Your task to perform on an android device: Search for pizza restaurants on Maps Image 0: 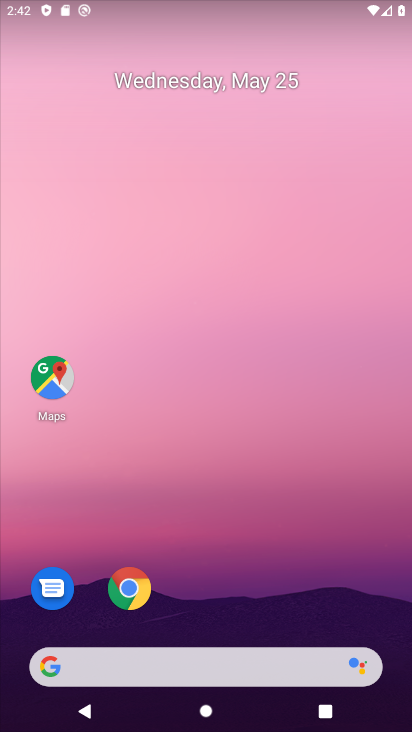
Step 0: drag from (309, 682) to (240, 145)
Your task to perform on an android device: Search for pizza restaurants on Maps Image 1: 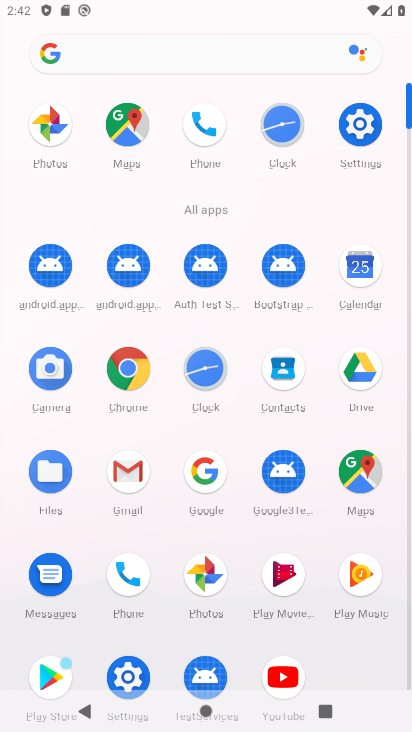
Step 1: click (365, 461)
Your task to perform on an android device: Search for pizza restaurants on Maps Image 2: 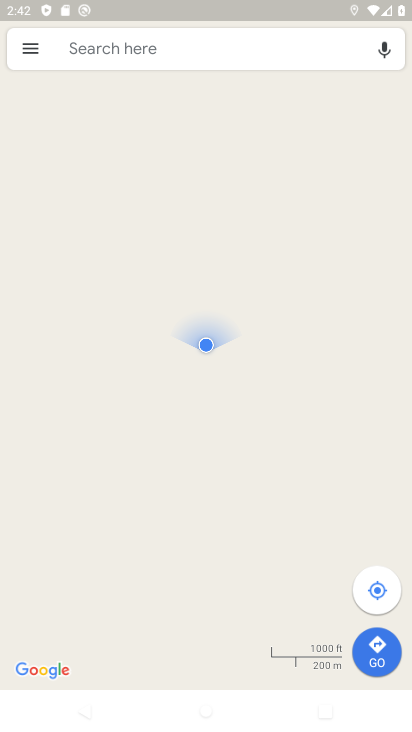
Step 2: click (147, 62)
Your task to perform on an android device: Search for pizza restaurants on Maps Image 3: 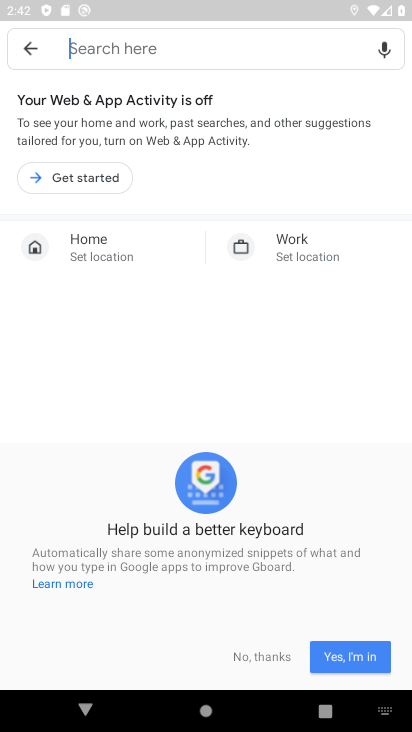
Step 3: click (255, 654)
Your task to perform on an android device: Search for pizza restaurants on Maps Image 4: 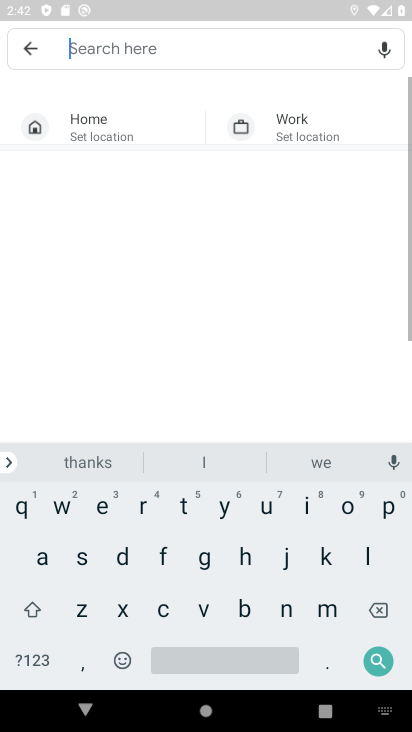
Step 4: click (70, 176)
Your task to perform on an android device: Search for pizza restaurants on Maps Image 5: 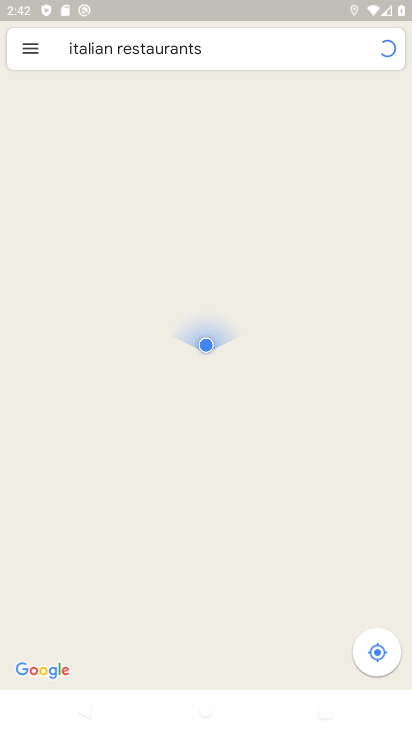
Step 5: click (352, 46)
Your task to perform on an android device: Search for pizza restaurants on Maps Image 6: 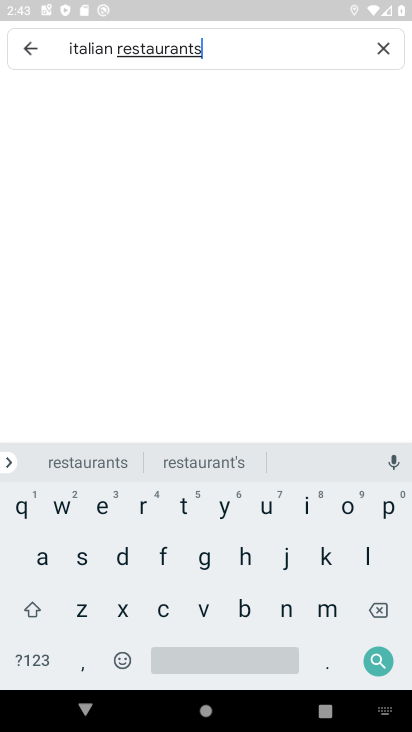
Step 6: click (383, 45)
Your task to perform on an android device: Search for pizza restaurants on Maps Image 7: 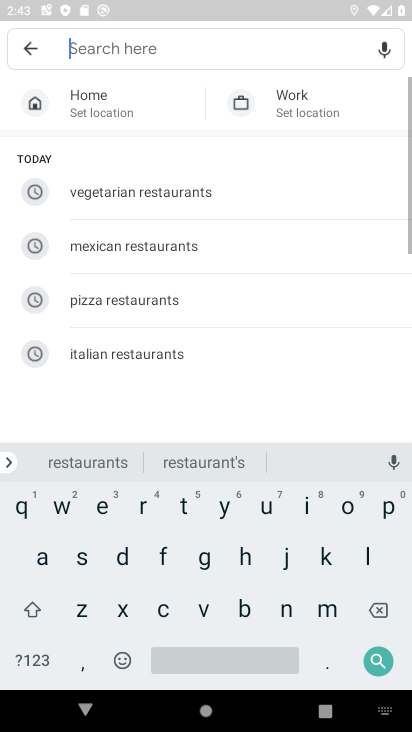
Step 7: click (392, 511)
Your task to perform on an android device: Search for pizza restaurants on Maps Image 8: 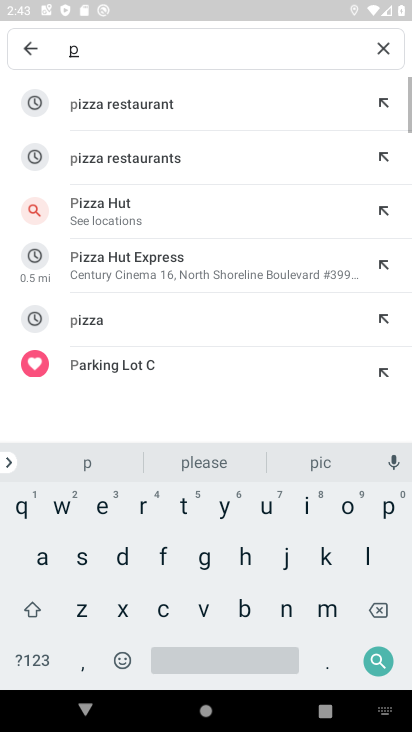
Step 8: click (129, 109)
Your task to perform on an android device: Search for pizza restaurants on Maps Image 9: 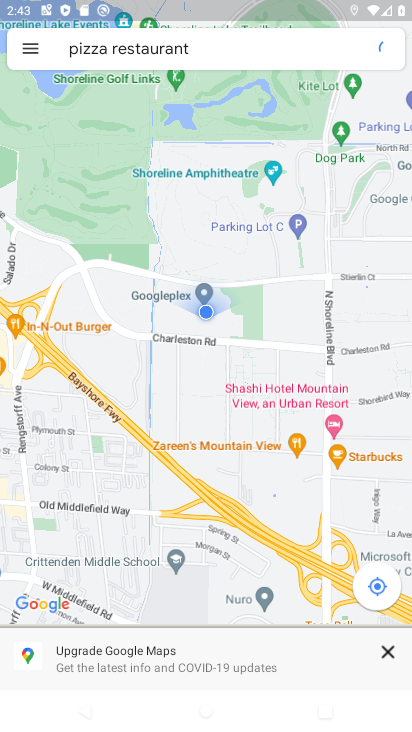
Step 9: task complete